Your task to perform on an android device: Open Youtube and go to the subscriptions tab Image 0: 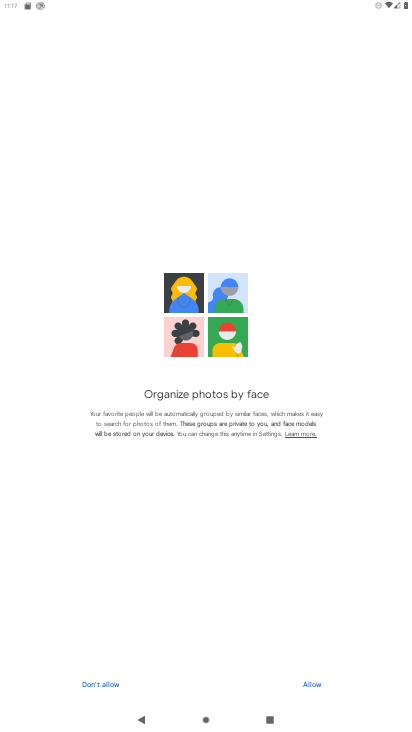
Step 0: press home button
Your task to perform on an android device: Open Youtube and go to the subscriptions tab Image 1: 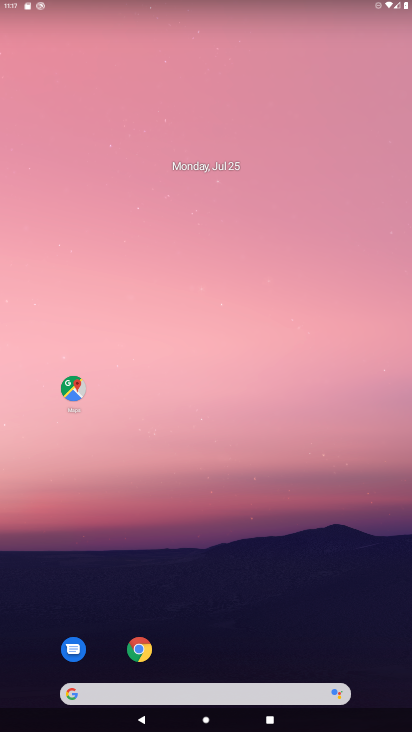
Step 1: drag from (388, 688) to (361, 250)
Your task to perform on an android device: Open Youtube and go to the subscriptions tab Image 2: 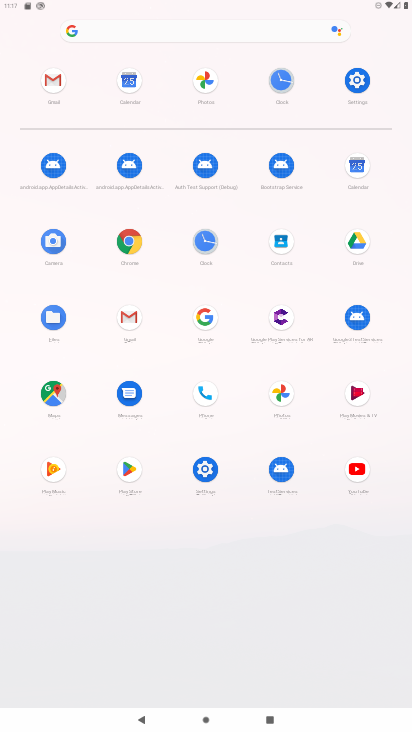
Step 2: click (358, 474)
Your task to perform on an android device: Open Youtube and go to the subscriptions tab Image 3: 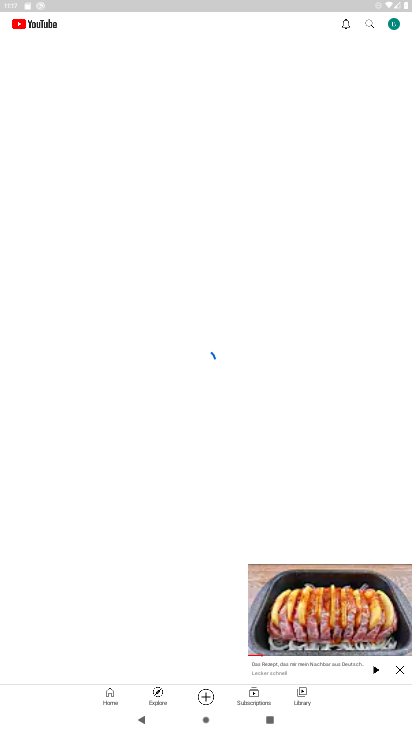
Step 3: click (252, 698)
Your task to perform on an android device: Open Youtube and go to the subscriptions tab Image 4: 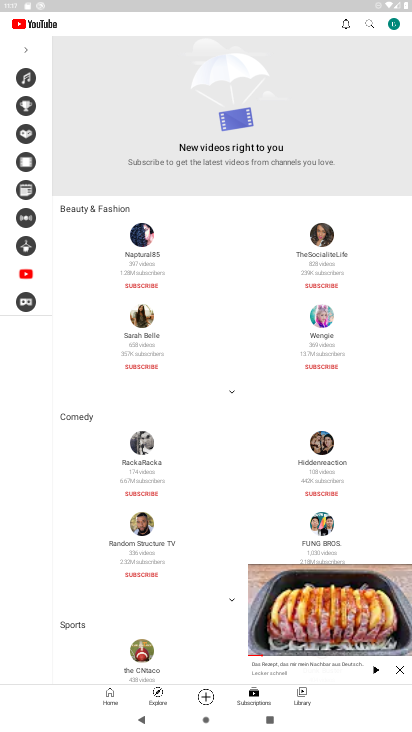
Step 4: click (401, 668)
Your task to perform on an android device: Open Youtube and go to the subscriptions tab Image 5: 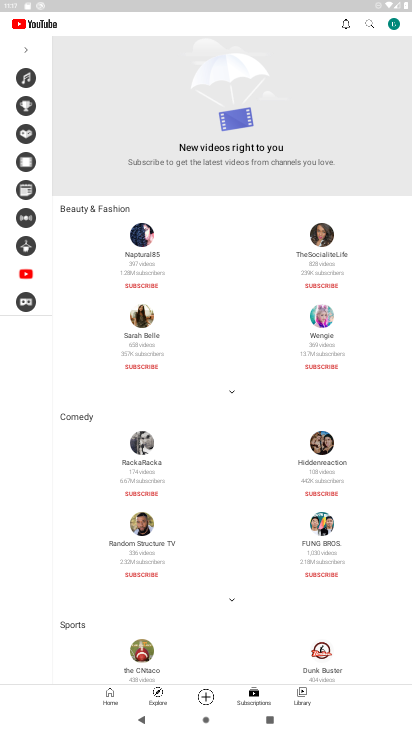
Step 5: task complete